Your task to perform on an android device: Empty the shopping cart on target.com. Add "acer predator" to the cart on target.com, then select checkout. Image 0: 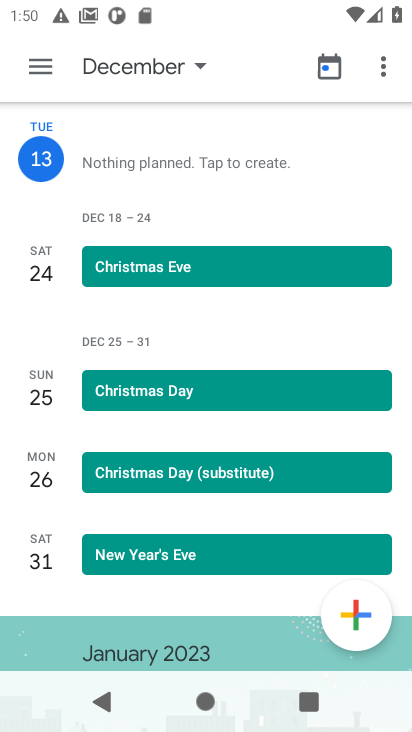
Step 0: press home button
Your task to perform on an android device: Empty the shopping cart on target.com. Add "acer predator" to the cart on target.com, then select checkout. Image 1: 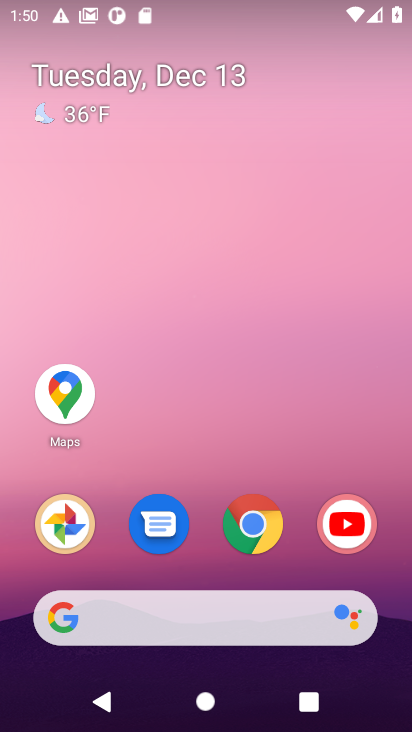
Step 1: click (259, 523)
Your task to perform on an android device: Empty the shopping cart on target.com. Add "acer predator" to the cart on target.com, then select checkout. Image 2: 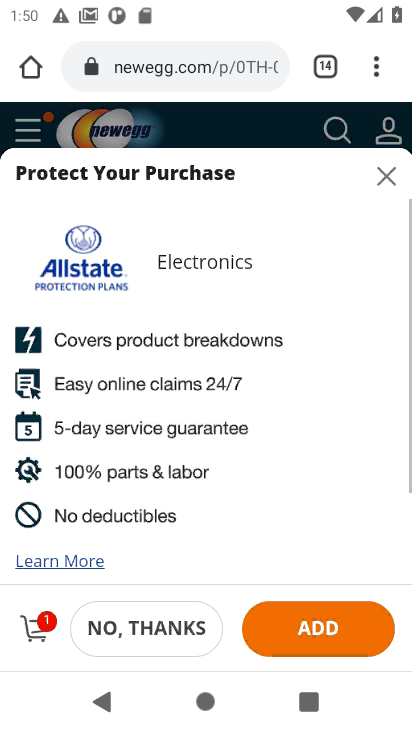
Step 2: click (171, 71)
Your task to perform on an android device: Empty the shopping cart on target.com. Add "acer predator" to the cart on target.com, then select checkout. Image 3: 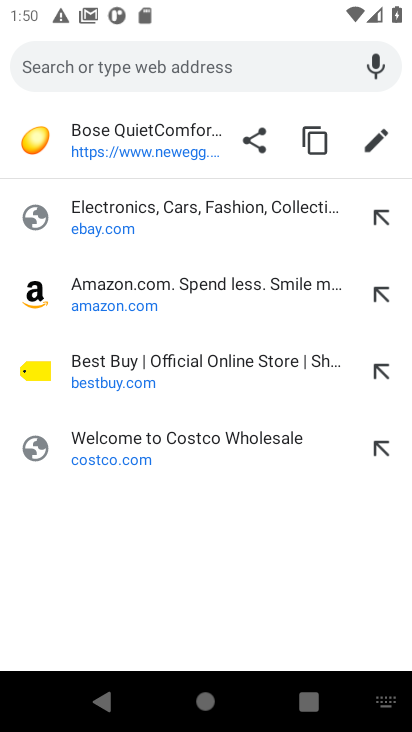
Step 3: type "target.com"
Your task to perform on an android device: Empty the shopping cart on target.com. Add "acer predator" to the cart on target.com, then select checkout. Image 4: 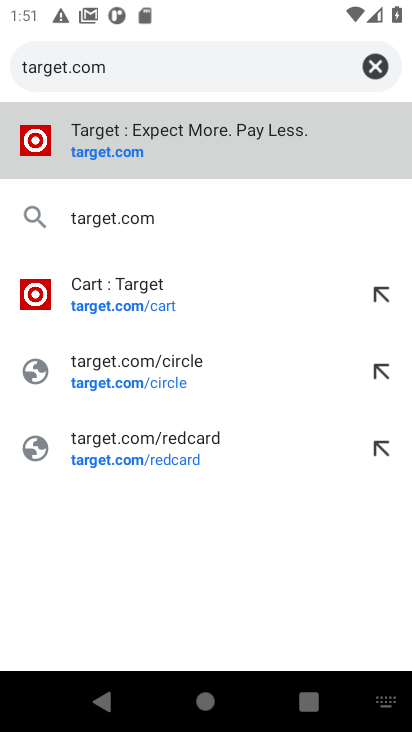
Step 4: click (110, 142)
Your task to perform on an android device: Empty the shopping cart on target.com. Add "acer predator" to the cart on target.com, then select checkout. Image 5: 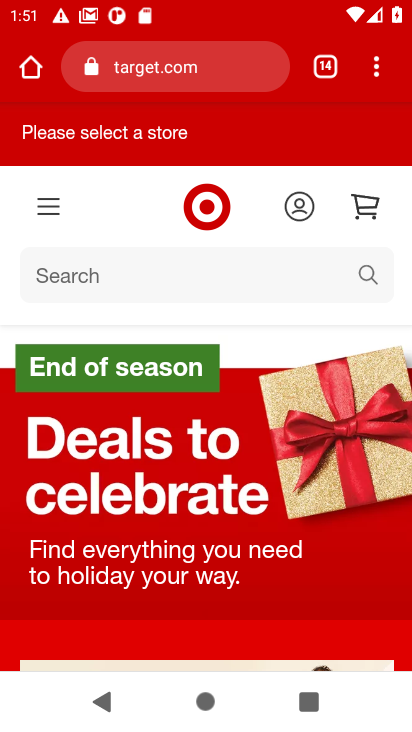
Step 5: click (360, 207)
Your task to perform on an android device: Empty the shopping cart on target.com. Add "acer predator" to the cart on target.com, then select checkout. Image 6: 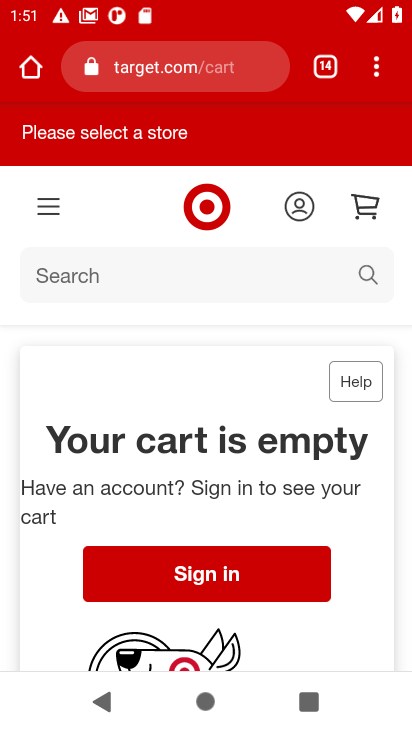
Step 6: click (365, 216)
Your task to perform on an android device: Empty the shopping cart on target.com. Add "acer predator" to the cart on target.com, then select checkout. Image 7: 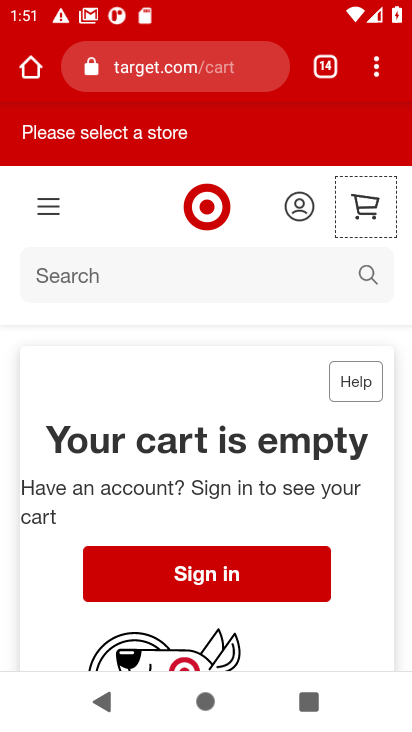
Step 7: drag from (225, 463) to (240, 291)
Your task to perform on an android device: Empty the shopping cart on target.com. Add "acer predator" to the cart on target.com, then select checkout. Image 8: 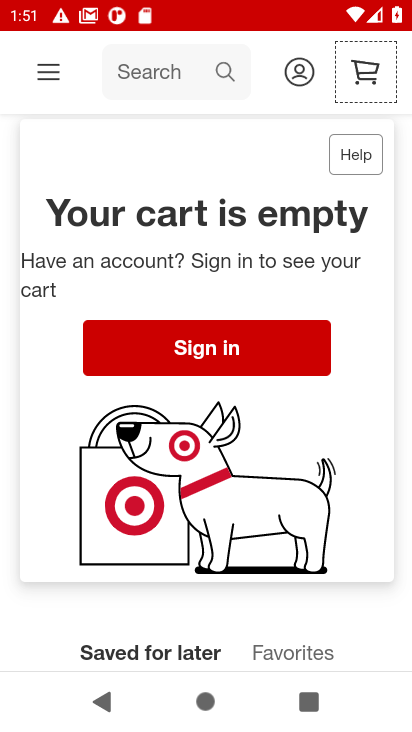
Step 8: click (223, 71)
Your task to perform on an android device: Empty the shopping cart on target.com. Add "acer predator" to the cart on target.com, then select checkout. Image 9: 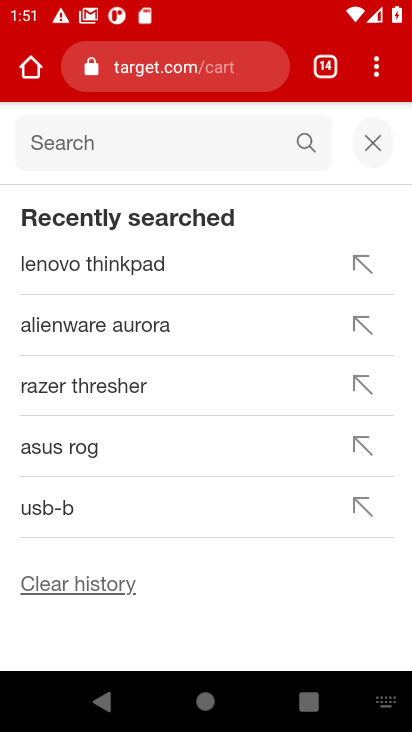
Step 9: type "acer predator"
Your task to perform on an android device: Empty the shopping cart on target.com. Add "acer predator" to the cart on target.com, then select checkout. Image 10: 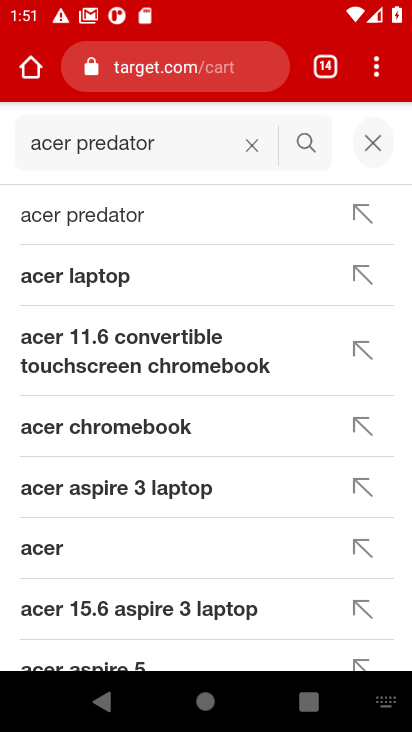
Step 10: click (63, 216)
Your task to perform on an android device: Empty the shopping cart on target.com. Add "acer predator" to the cart on target.com, then select checkout. Image 11: 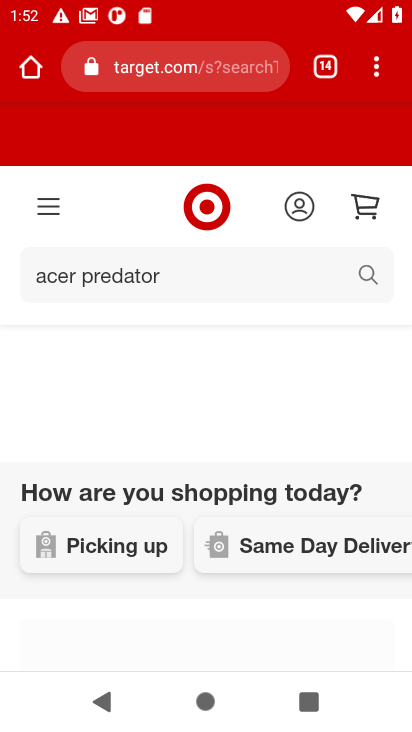
Step 11: drag from (191, 501) to (194, 227)
Your task to perform on an android device: Empty the shopping cart on target.com. Add "acer predator" to the cart on target.com, then select checkout. Image 12: 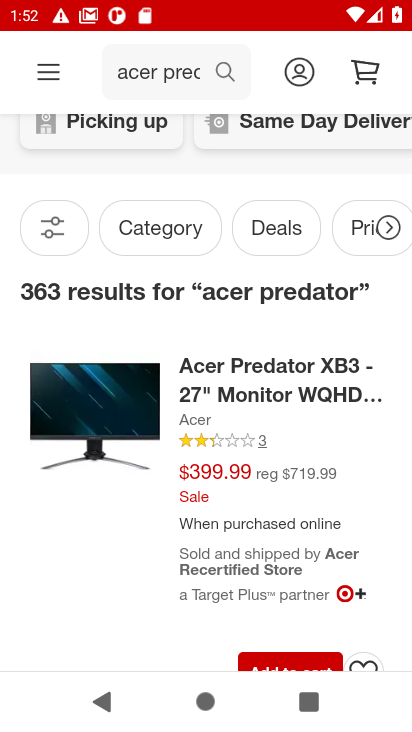
Step 12: drag from (249, 537) to (266, 370)
Your task to perform on an android device: Empty the shopping cart on target.com. Add "acer predator" to the cart on target.com, then select checkout. Image 13: 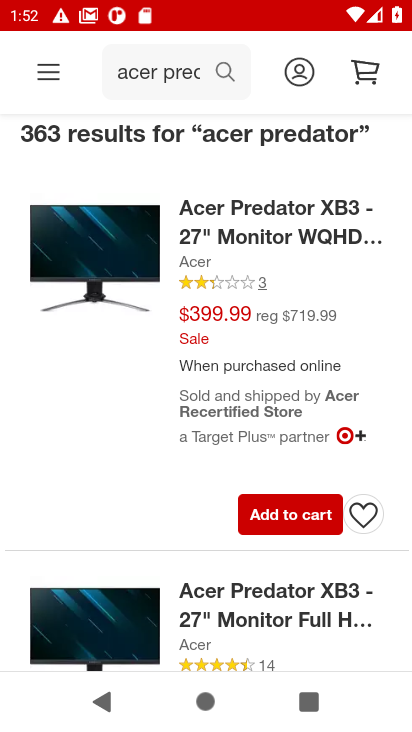
Step 13: click (278, 516)
Your task to perform on an android device: Empty the shopping cart on target.com. Add "acer predator" to the cart on target.com, then select checkout. Image 14: 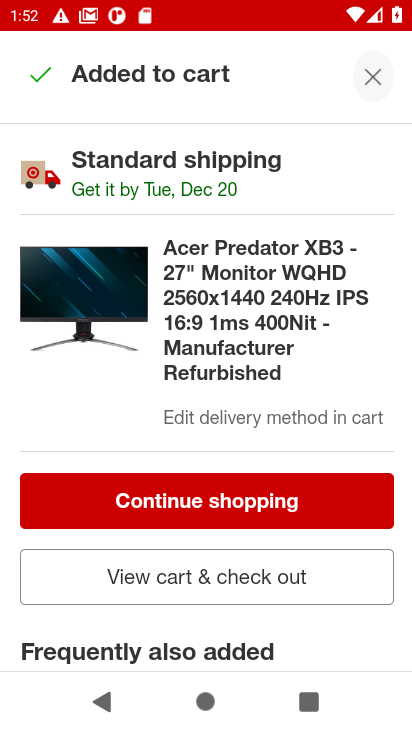
Step 14: click (189, 577)
Your task to perform on an android device: Empty the shopping cart on target.com. Add "acer predator" to the cart on target.com, then select checkout. Image 15: 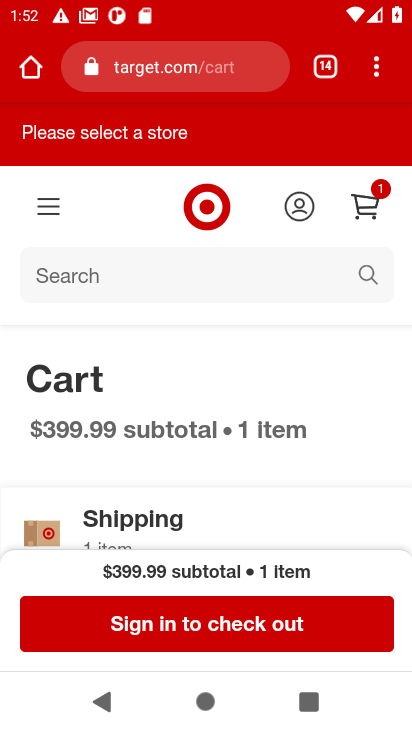
Step 15: click (193, 627)
Your task to perform on an android device: Empty the shopping cart on target.com. Add "acer predator" to the cart on target.com, then select checkout. Image 16: 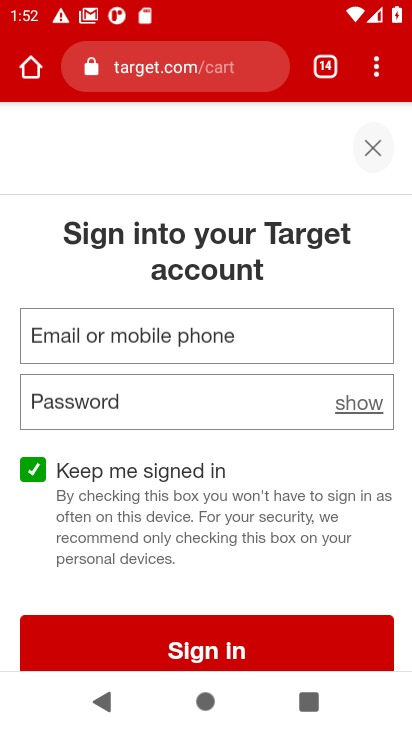
Step 16: task complete